Your task to perform on an android device: Set the phone to "Do not disturb". Image 0: 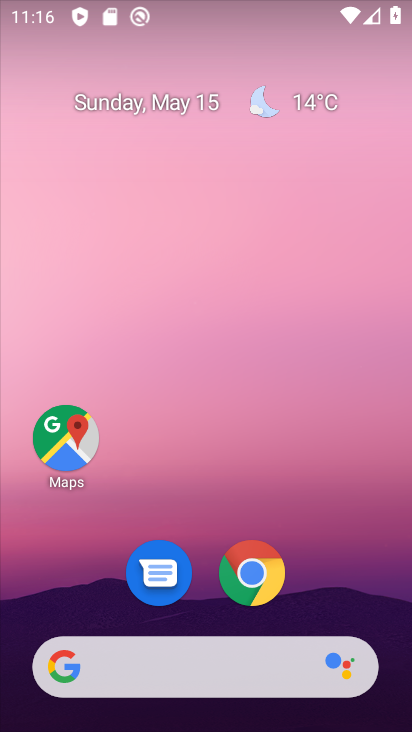
Step 0: drag from (321, 492) to (263, 78)
Your task to perform on an android device: Set the phone to "Do not disturb". Image 1: 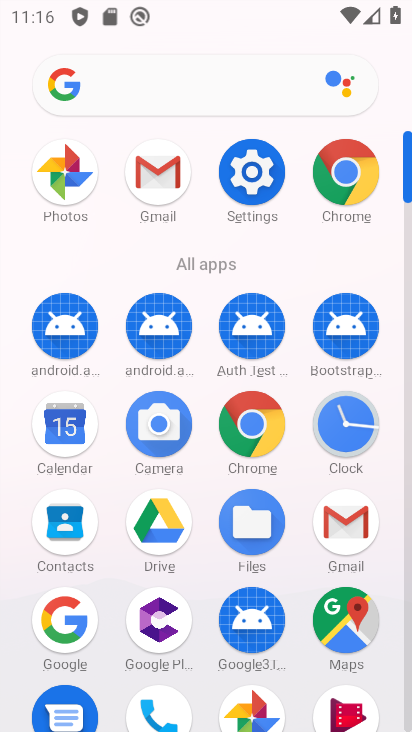
Step 1: click (255, 168)
Your task to perform on an android device: Set the phone to "Do not disturb". Image 2: 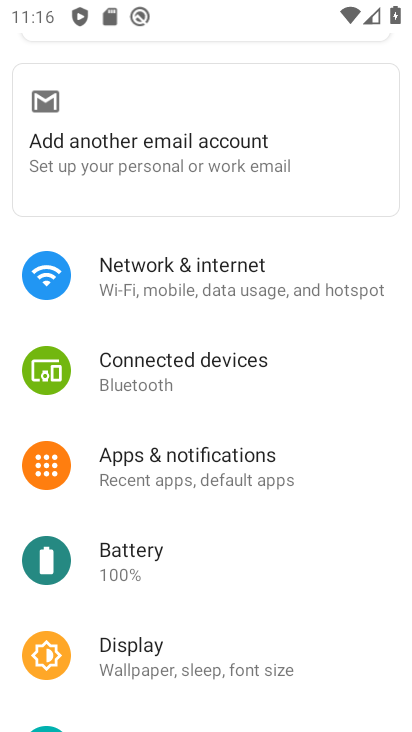
Step 2: drag from (246, 610) to (227, 265)
Your task to perform on an android device: Set the phone to "Do not disturb". Image 3: 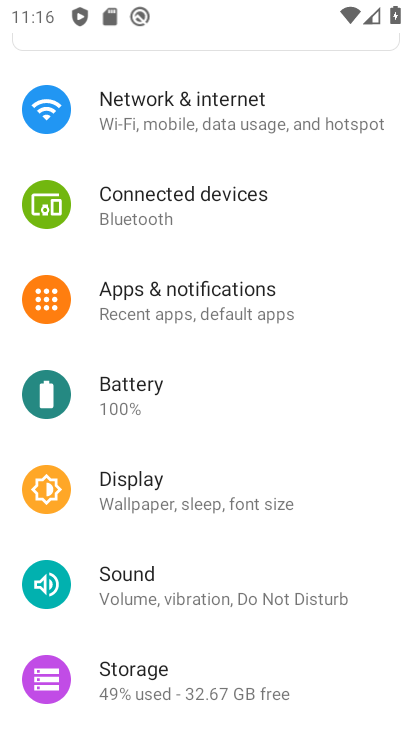
Step 3: click (118, 576)
Your task to perform on an android device: Set the phone to "Do not disturb". Image 4: 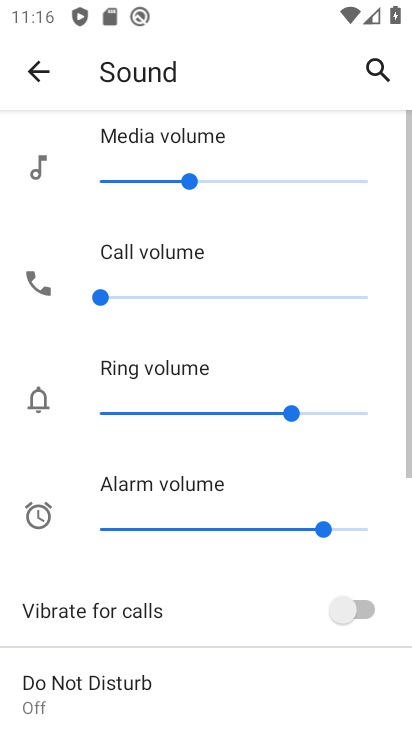
Step 4: drag from (216, 562) to (186, 118)
Your task to perform on an android device: Set the phone to "Do not disturb". Image 5: 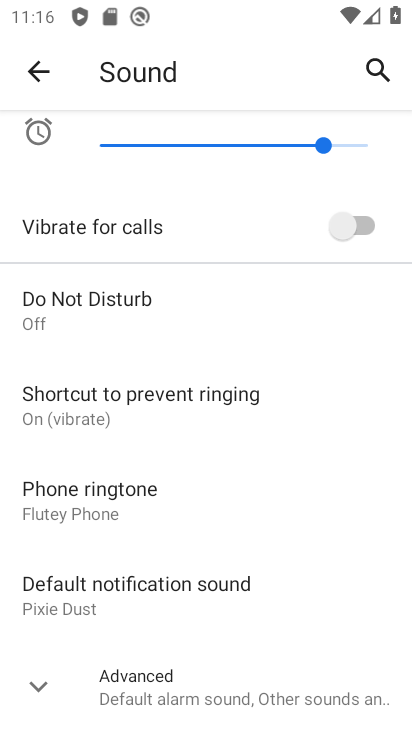
Step 5: click (56, 300)
Your task to perform on an android device: Set the phone to "Do not disturb". Image 6: 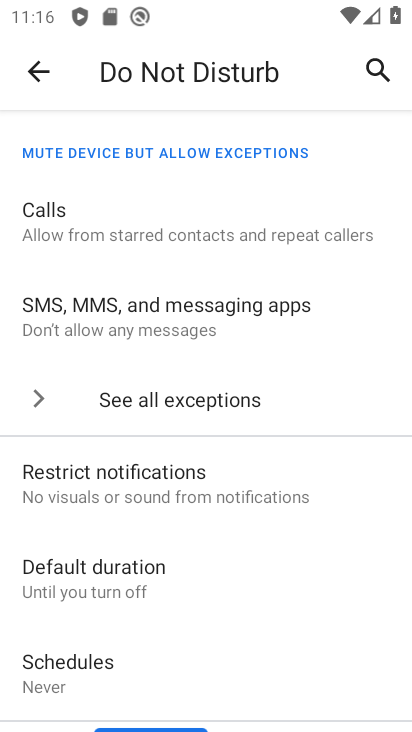
Step 6: drag from (247, 543) to (233, 209)
Your task to perform on an android device: Set the phone to "Do not disturb". Image 7: 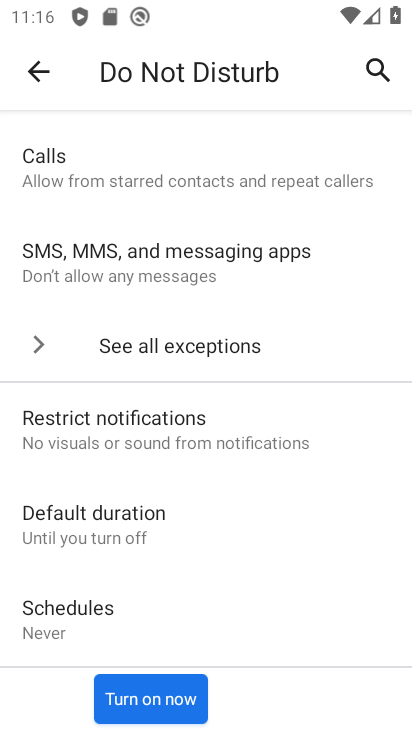
Step 7: click (172, 703)
Your task to perform on an android device: Set the phone to "Do not disturb". Image 8: 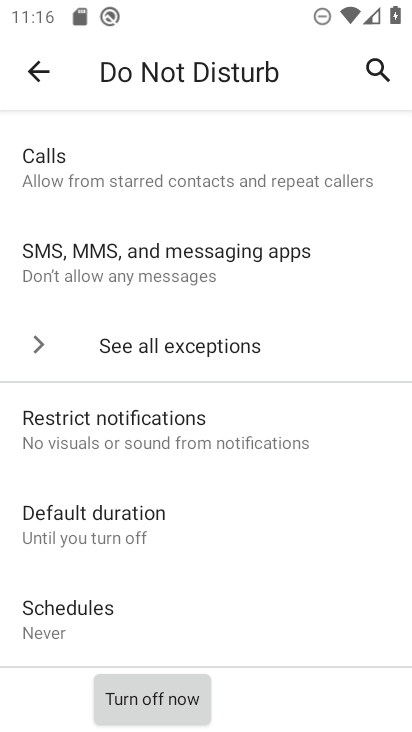
Step 8: task complete